Your task to perform on an android device: Open Chrome and go to settings Image 0: 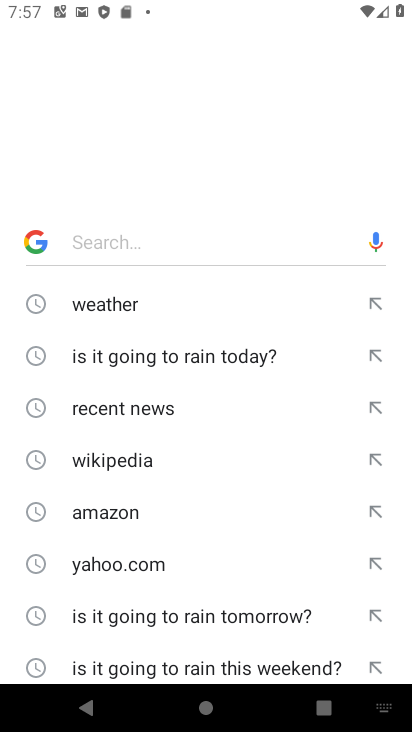
Step 0: press home button
Your task to perform on an android device: Open Chrome and go to settings Image 1: 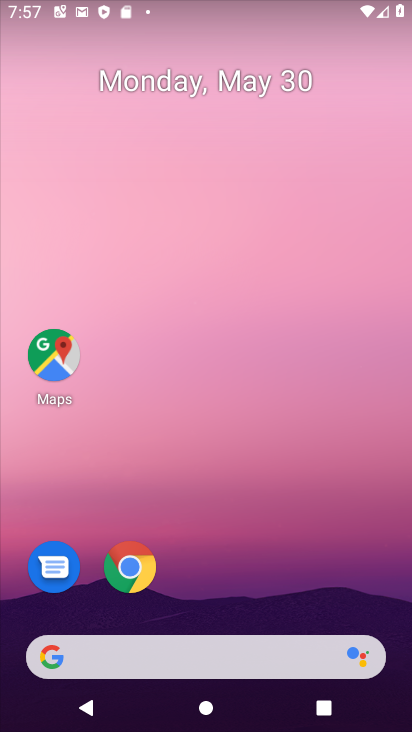
Step 1: click (131, 567)
Your task to perform on an android device: Open Chrome and go to settings Image 2: 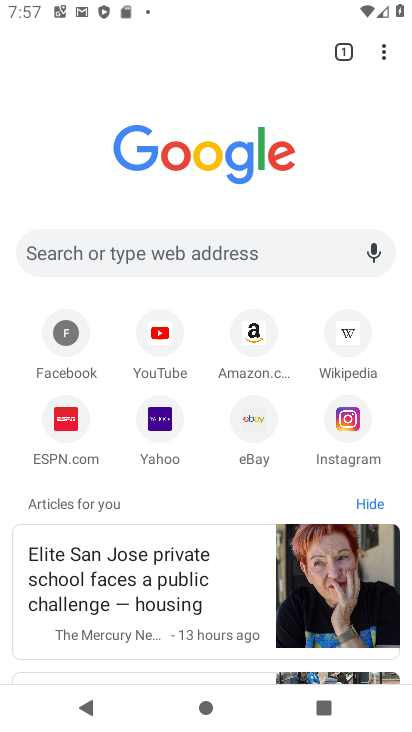
Step 2: click (394, 47)
Your task to perform on an android device: Open Chrome and go to settings Image 3: 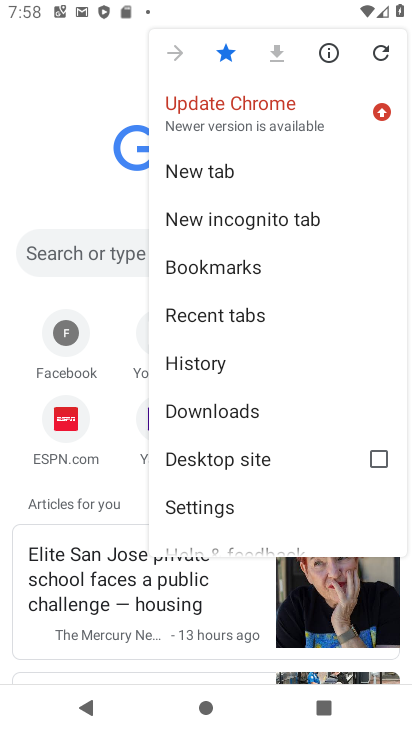
Step 3: click (251, 503)
Your task to perform on an android device: Open Chrome and go to settings Image 4: 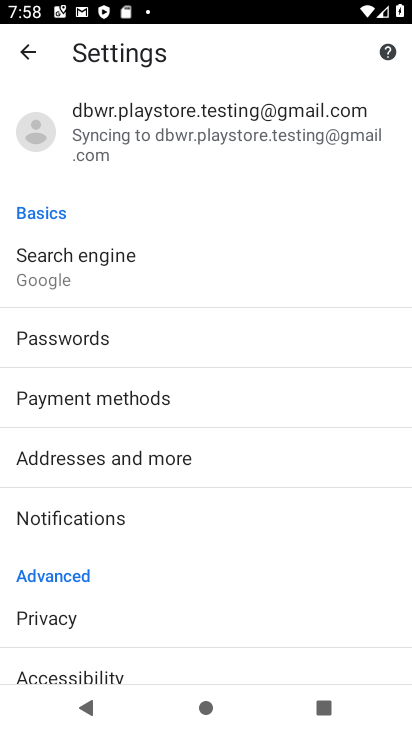
Step 4: task complete